Your task to perform on an android device: turn off sleep mode Image 0: 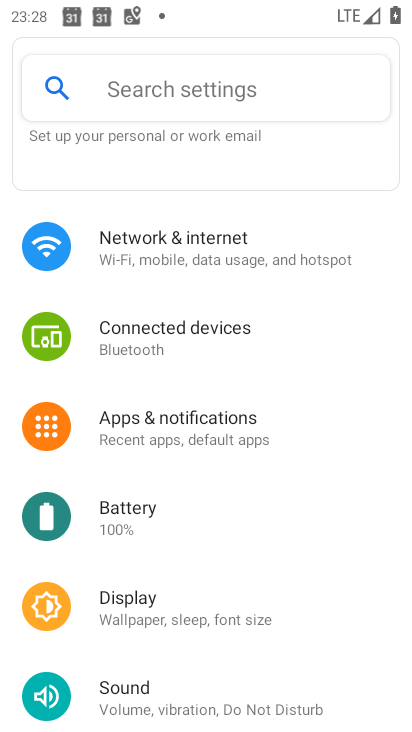
Step 0: click (131, 595)
Your task to perform on an android device: turn off sleep mode Image 1: 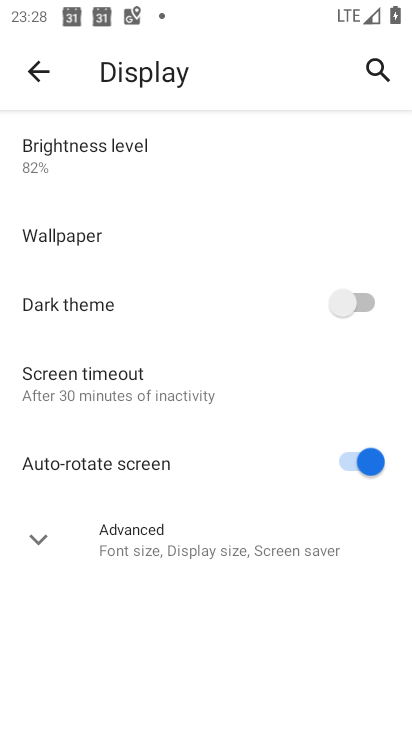
Step 1: click (113, 526)
Your task to perform on an android device: turn off sleep mode Image 2: 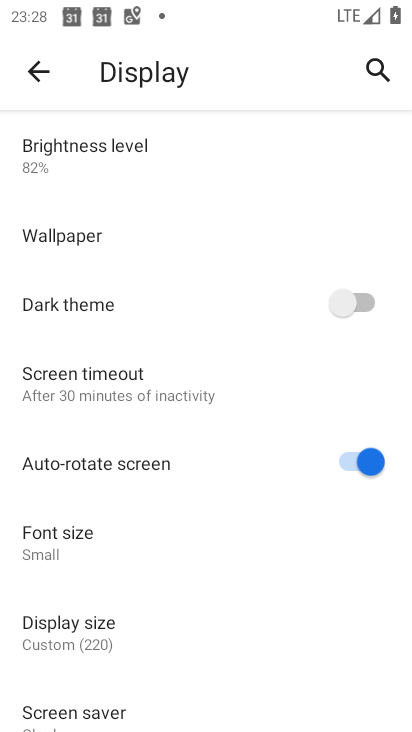
Step 2: task complete